Your task to perform on an android device: open a bookmark in the chrome app Image 0: 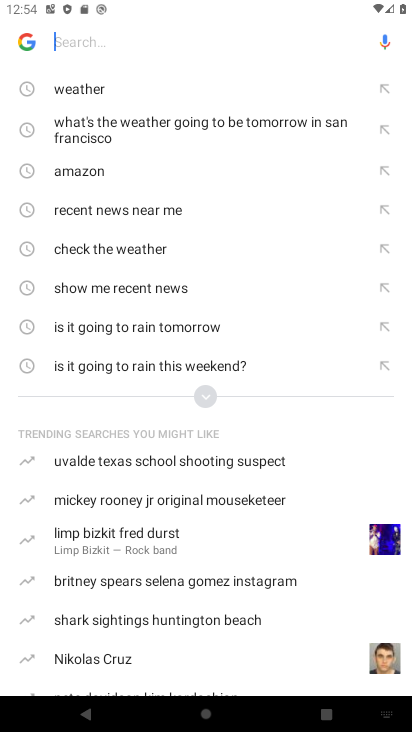
Step 0: press home button
Your task to perform on an android device: open a bookmark in the chrome app Image 1: 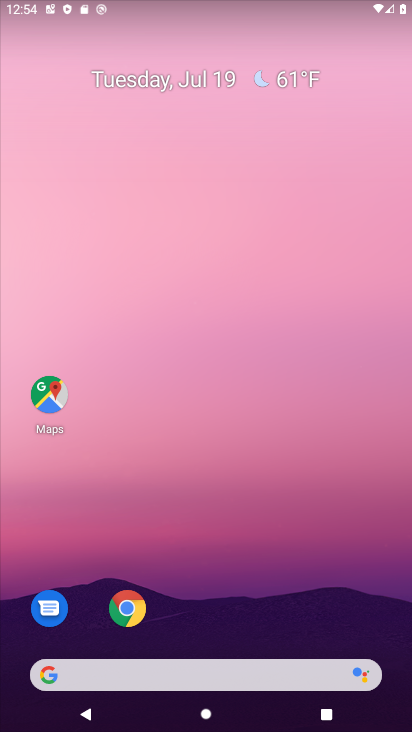
Step 1: drag from (351, 589) to (322, 132)
Your task to perform on an android device: open a bookmark in the chrome app Image 2: 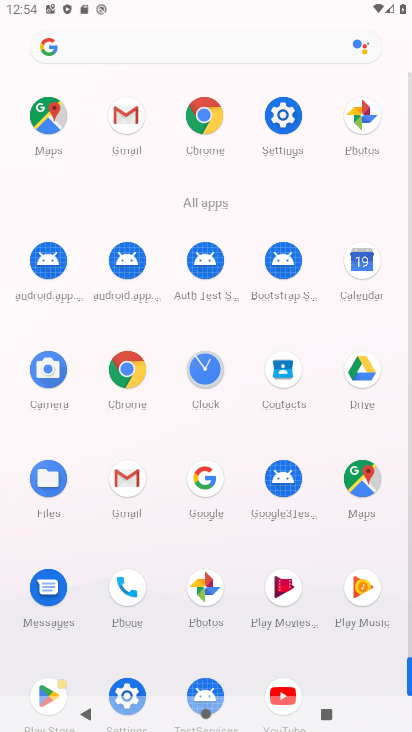
Step 2: click (200, 139)
Your task to perform on an android device: open a bookmark in the chrome app Image 3: 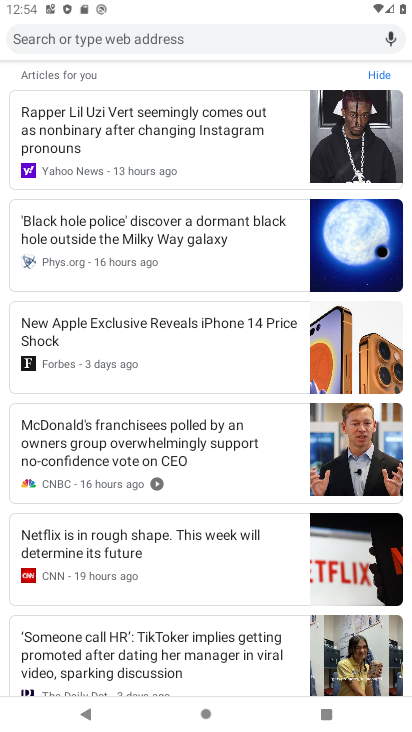
Step 3: drag from (241, 219) to (331, 609)
Your task to perform on an android device: open a bookmark in the chrome app Image 4: 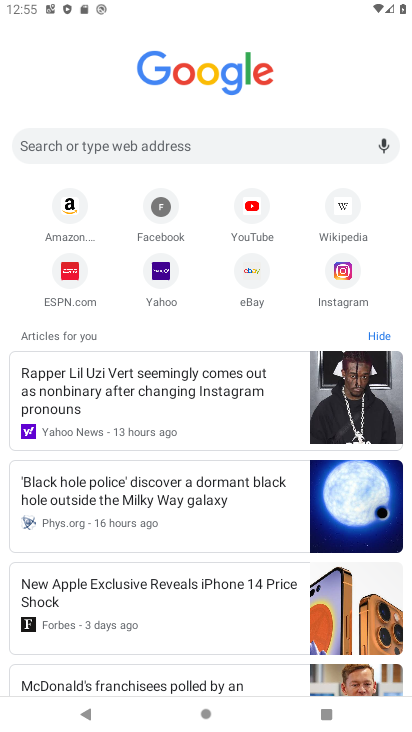
Step 4: drag from (215, 170) to (259, 575)
Your task to perform on an android device: open a bookmark in the chrome app Image 5: 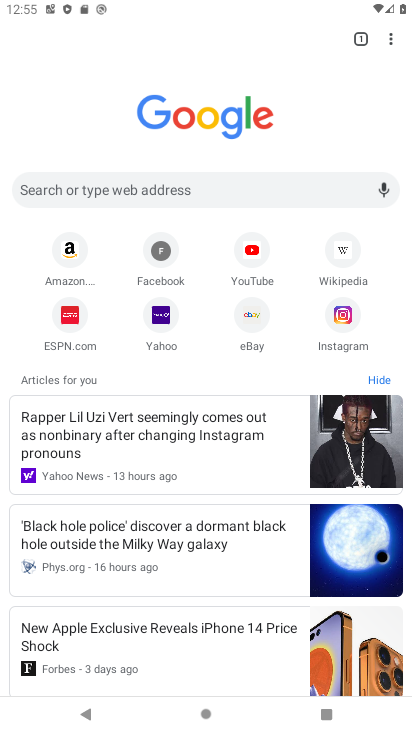
Step 5: drag from (394, 45) to (269, 156)
Your task to perform on an android device: open a bookmark in the chrome app Image 6: 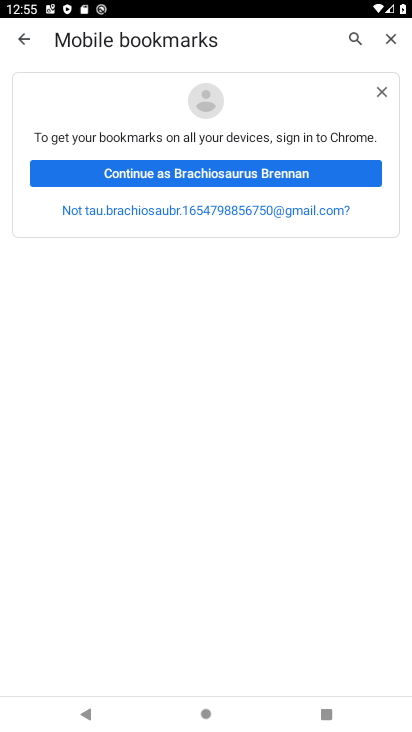
Step 6: click (197, 173)
Your task to perform on an android device: open a bookmark in the chrome app Image 7: 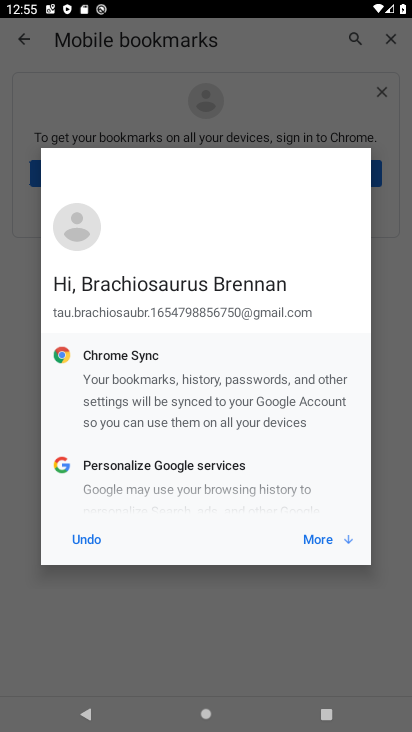
Step 7: click (316, 538)
Your task to perform on an android device: open a bookmark in the chrome app Image 8: 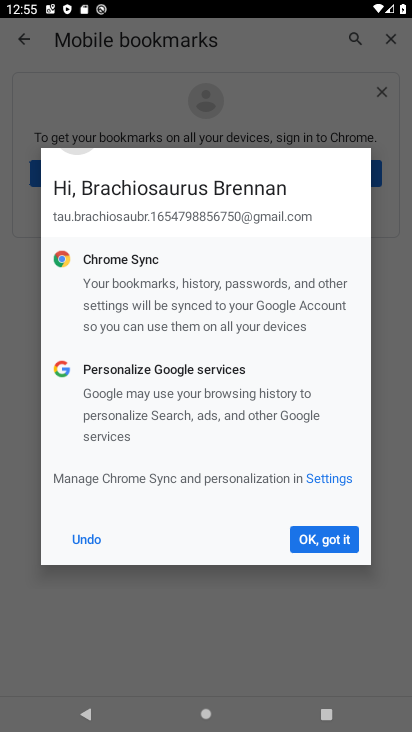
Step 8: click (316, 538)
Your task to perform on an android device: open a bookmark in the chrome app Image 9: 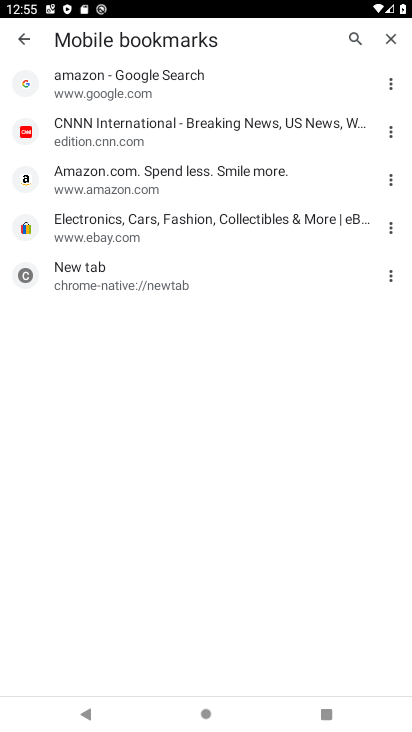
Step 9: task complete